Your task to perform on an android device: allow notifications from all sites in the chrome app Image 0: 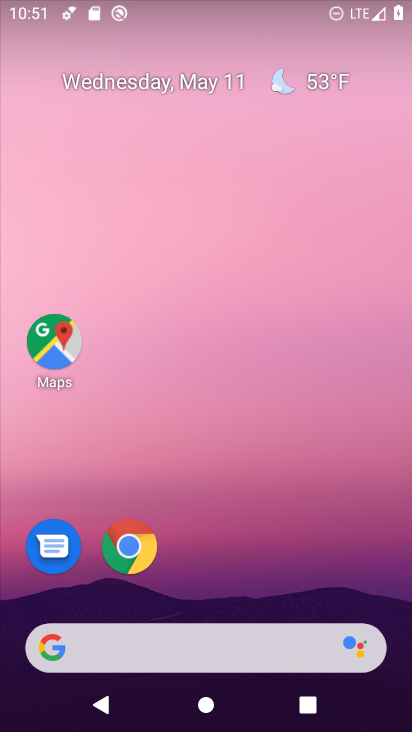
Step 0: drag from (365, 592) to (287, 32)
Your task to perform on an android device: allow notifications from all sites in the chrome app Image 1: 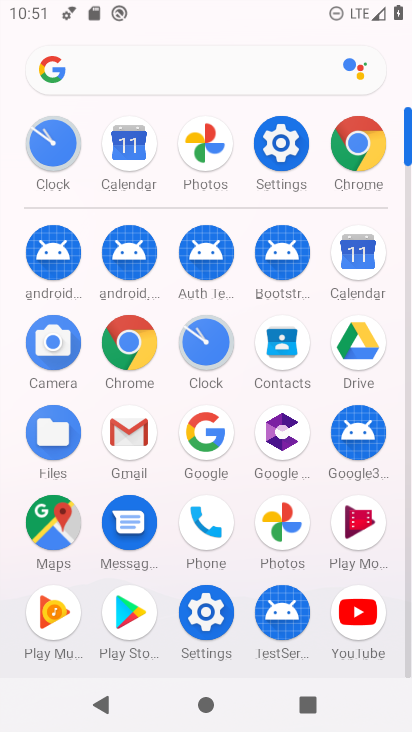
Step 1: click (349, 155)
Your task to perform on an android device: allow notifications from all sites in the chrome app Image 2: 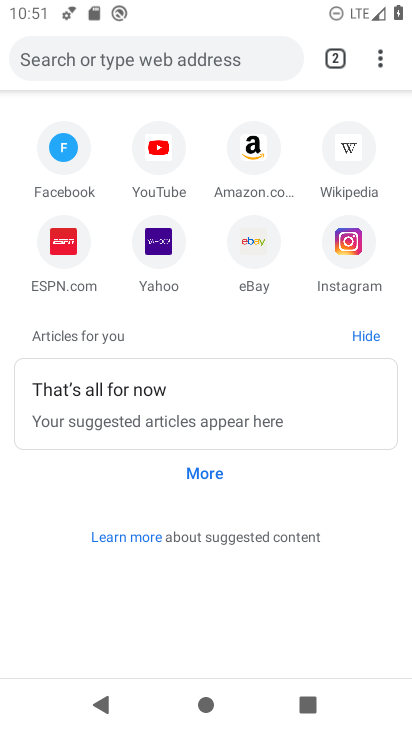
Step 2: click (382, 61)
Your task to perform on an android device: allow notifications from all sites in the chrome app Image 3: 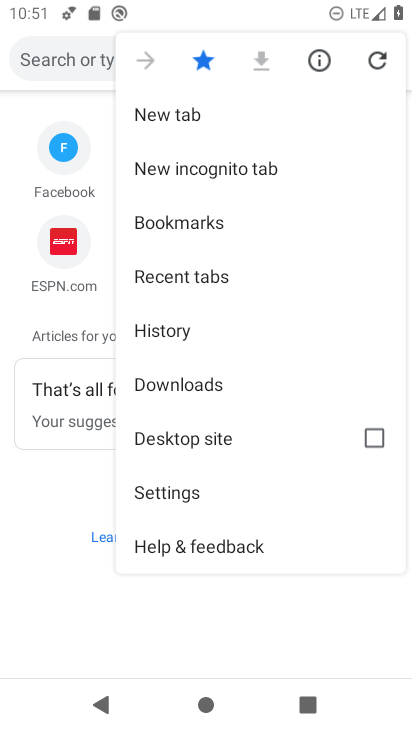
Step 3: click (200, 494)
Your task to perform on an android device: allow notifications from all sites in the chrome app Image 4: 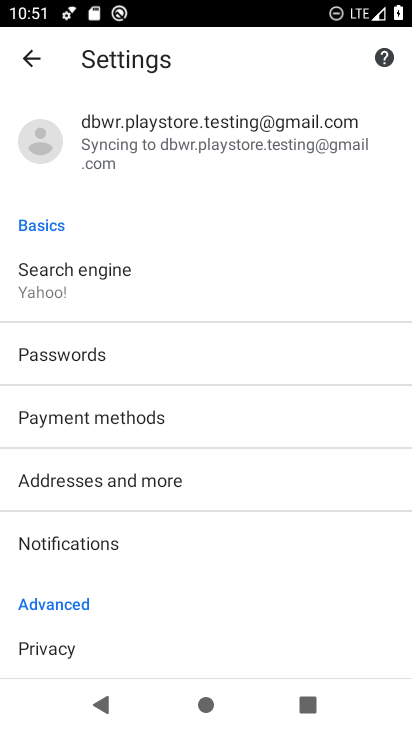
Step 4: click (138, 546)
Your task to perform on an android device: allow notifications from all sites in the chrome app Image 5: 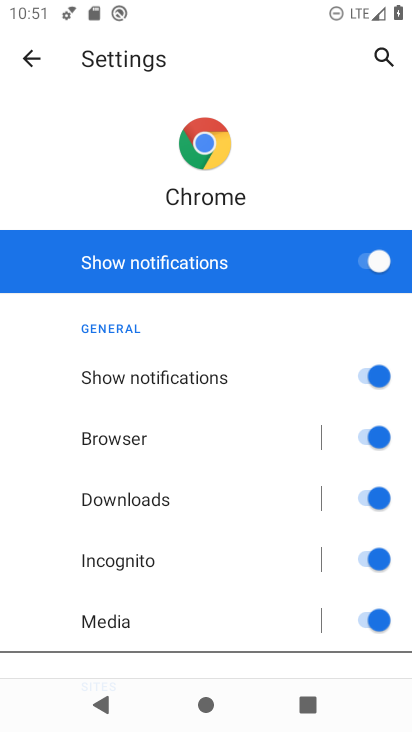
Step 5: task complete